Your task to perform on an android device: What's the weather? Image 0: 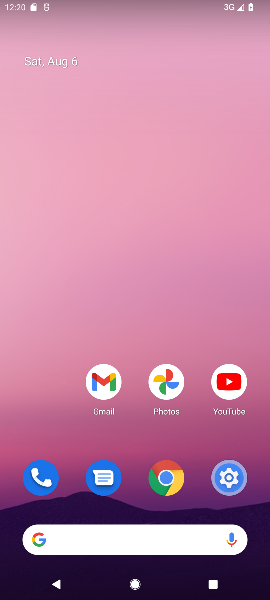
Step 0: drag from (143, 484) to (191, 178)
Your task to perform on an android device: What's the weather? Image 1: 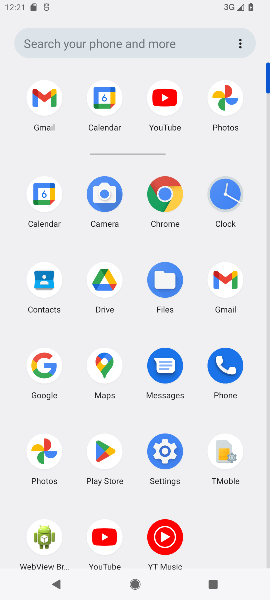
Step 1: click (47, 363)
Your task to perform on an android device: What's the weather? Image 2: 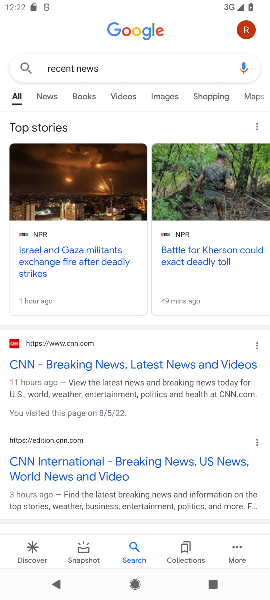
Step 2: click (104, 68)
Your task to perform on an android device: What's the weather? Image 3: 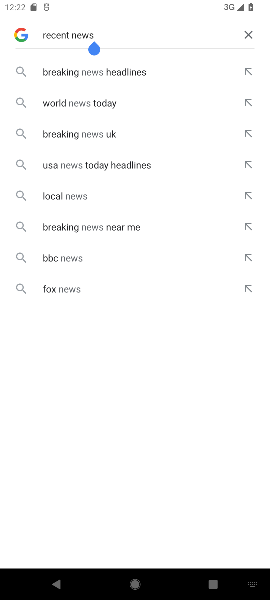
Step 3: click (240, 42)
Your task to perform on an android device: What's the weather? Image 4: 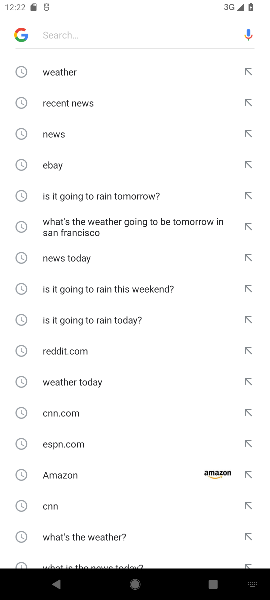
Step 4: click (47, 76)
Your task to perform on an android device: What's the weather? Image 5: 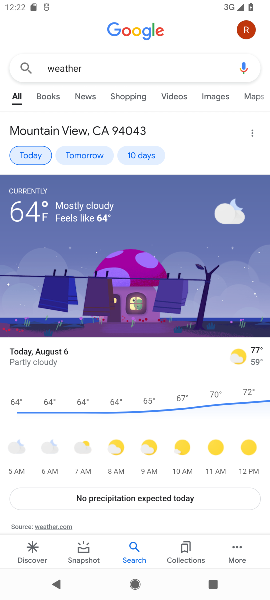
Step 5: task complete